Your task to perform on an android device: open app "ColorNote Notepad Notes" (install if not already installed) Image 0: 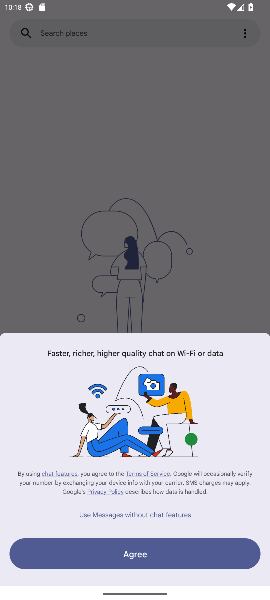
Step 0: press home button
Your task to perform on an android device: open app "ColorNote Notepad Notes" (install if not already installed) Image 1: 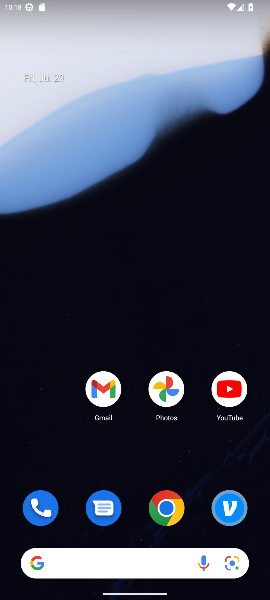
Step 1: drag from (122, 576) to (133, 56)
Your task to perform on an android device: open app "ColorNote Notepad Notes" (install if not already installed) Image 2: 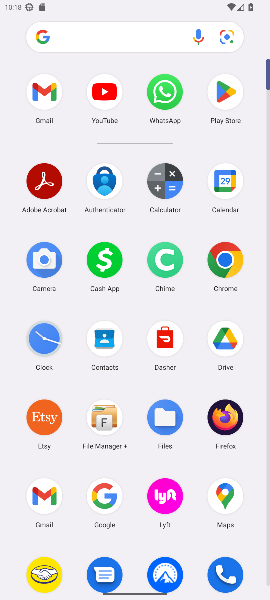
Step 2: click (224, 83)
Your task to perform on an android device: open app "ColorNote Notepad Notes" (install if not already installed) Image 3: 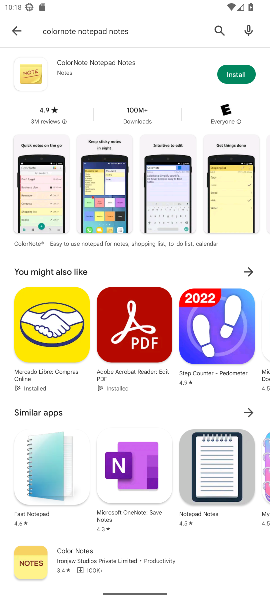
Step 3: click (239, 78)
Your task to perform on an android device: open app "ColorNote Notepad Notes" (install if not already installed) Image 4: 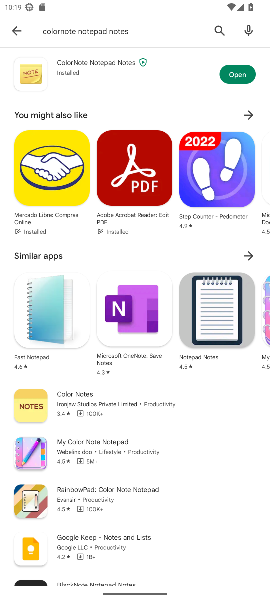
Step 4: click (243, 71)
Your task to perform on an android device: open app "ColorNote Notepad Notes" (install if not already installed) Image 5: 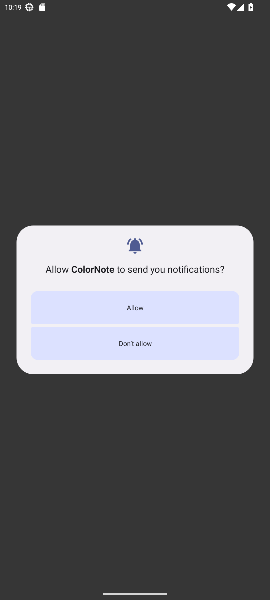
Step 5: task complete